Your task to perform on an android device: Search for a new foundation (skincare) product Image 0: 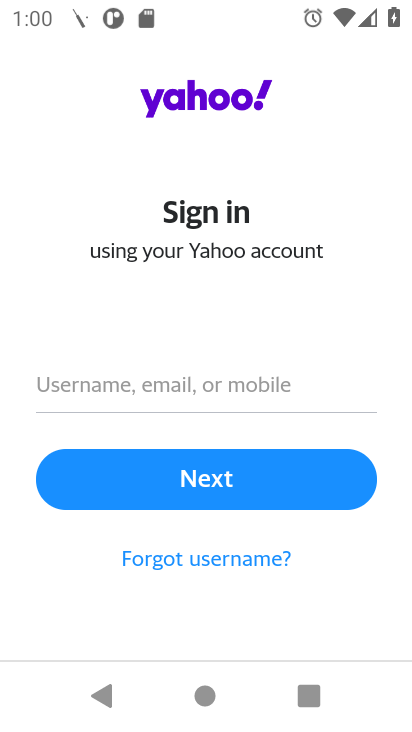
Step 0: press home button
Your task to perform on an android device: Search for a new foundation (skincare) product Image 1: 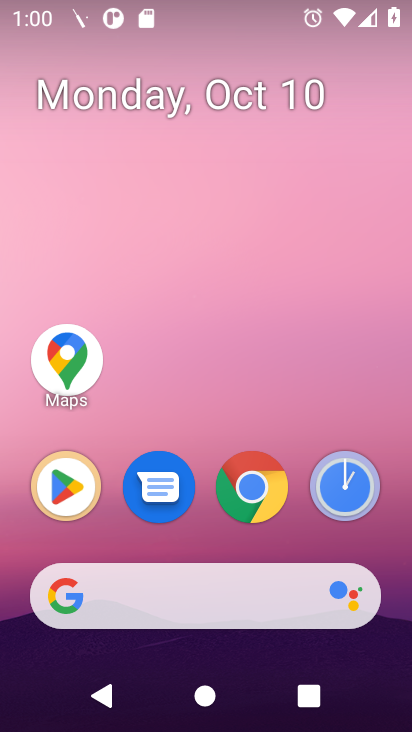
Step 1: click (248, 496)
Your task to perform on an android device: Search for a new foundation (skincare) product Image 2: 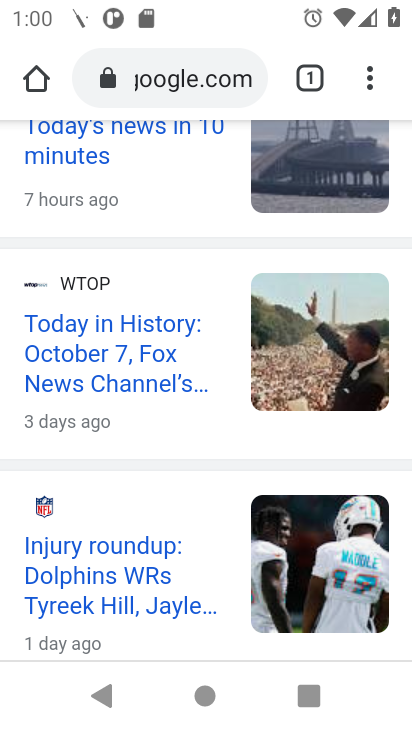
Step 2: click (176, 70)
Your task to perform on an android device: Search for a new foundation (skincare) product Image 3: 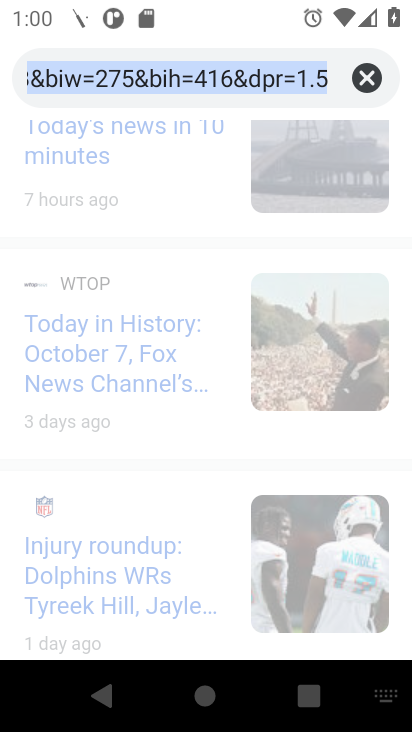
Step 3: type "new foundation skincare product"
Your task to perform on an android device: Search for a new foundation (skincare) product Image 4: 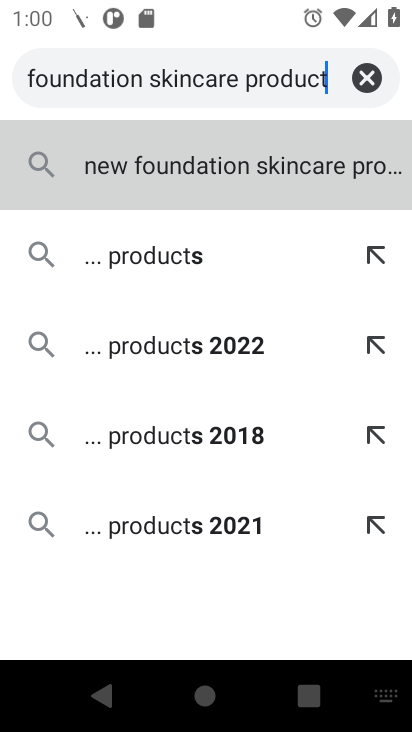
Step 4: press enter
Your task to perform on an android device: Search for a new foundation (skincare) product Image 5: 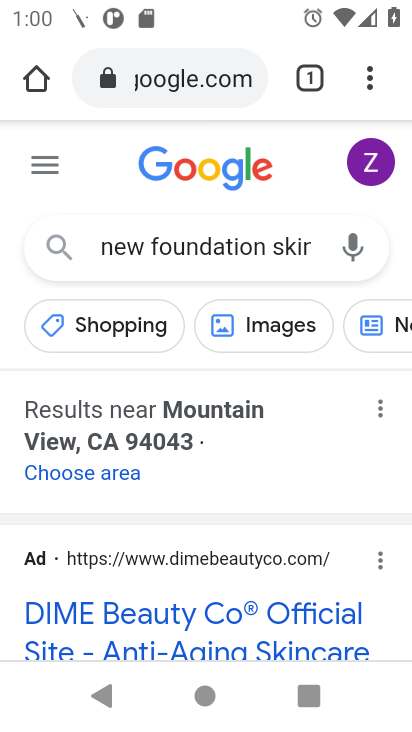
Step 5: drag from (271, 374) to (273, 326)
Your task to perform on an android device: Search for a new foundation (skincare) product Image 6: 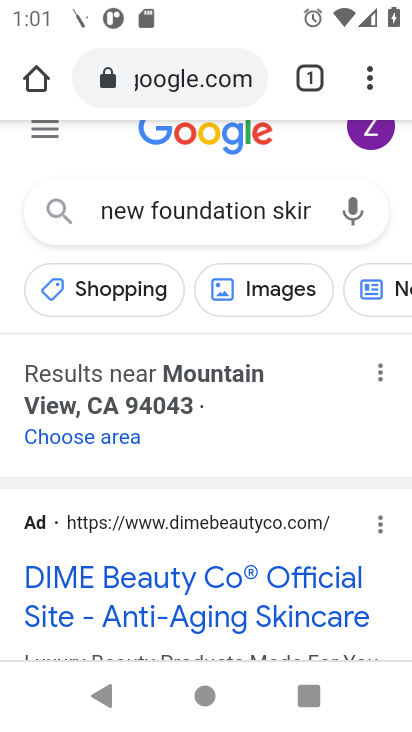
Step 6: drag from (303, 629) to (321, 195)
Your task to perform on an android device: Search for a new foundation (skincare) product Image 7: 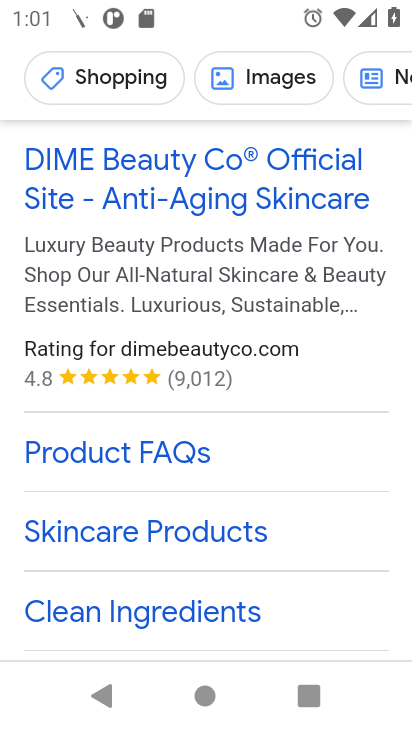
Step 7: drag from (323, 608) to (329, 316)
Your task to perform on an android device: Search for a new foundation (skincare) product Image 8: 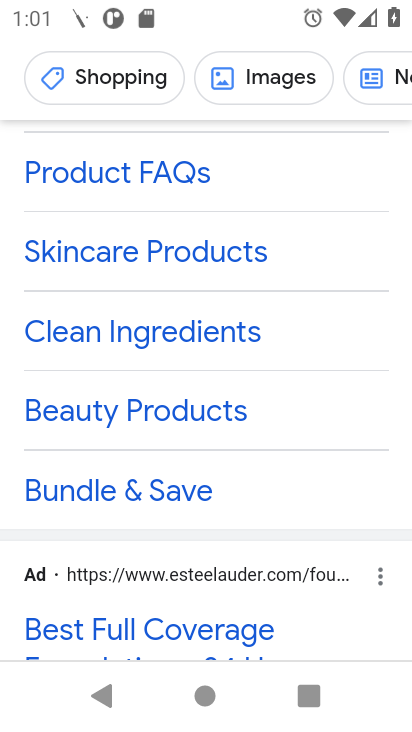
Step 8: click (220, 256)
Your task to perform on an android device: Search for a new foundation (skincare) product Image 9: 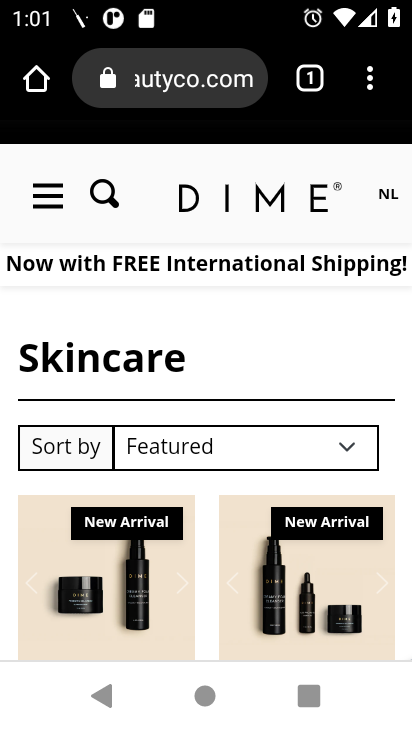
Step 9: drag from (146, 592) to (134, 222)
Your task to perform on an android device: Search for a new foundation (skincare) product Image 10: 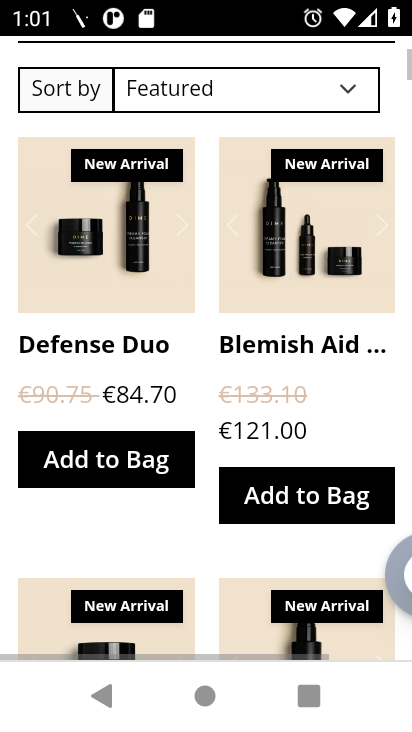
Step 10: drag from (177, 570) to (189, 261)
Your task to perform on an android device: Search for a new foundation (skincare) product Image 11: 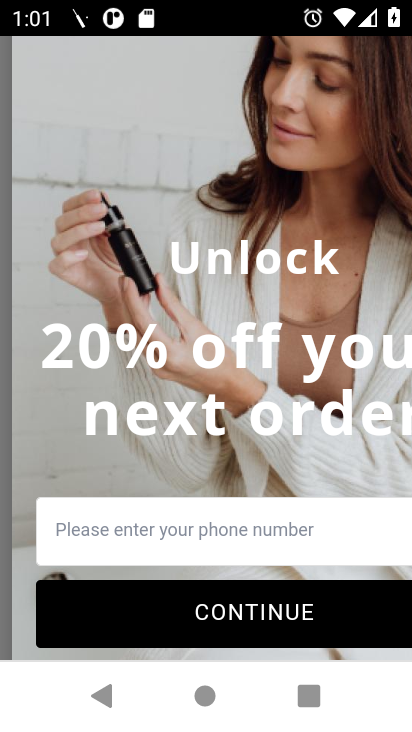
Step 11: drag from (265, 491) to (237, 139)
Your task to perform on an android device: Search for a new foundation (skincare) product Image 12: 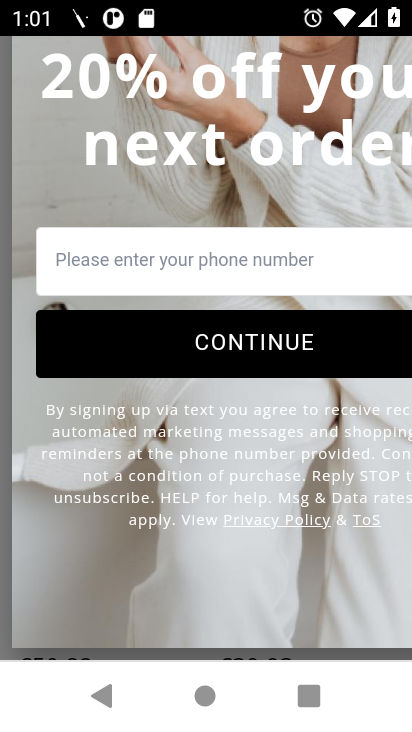
Step 12: drag from (215, 530) to (198, 618)
Your task to perform on an android device: Search for a new foundation (skincare) product Image 13: 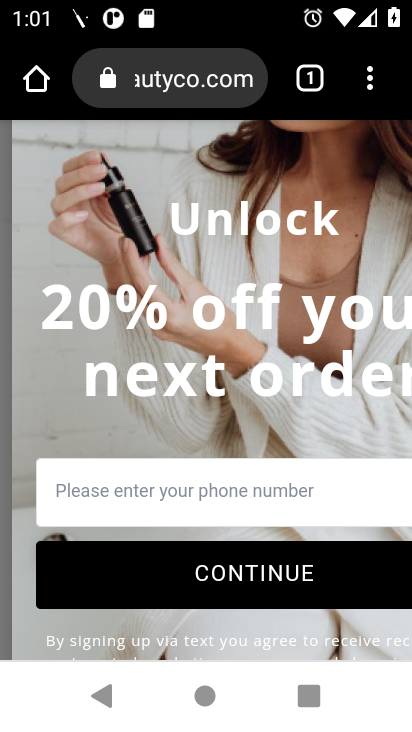
Step 13: drag from (232, 304) to (244, 625)
Your task to perform on an android device: Search for a new foundation (skincare) product Image 14: 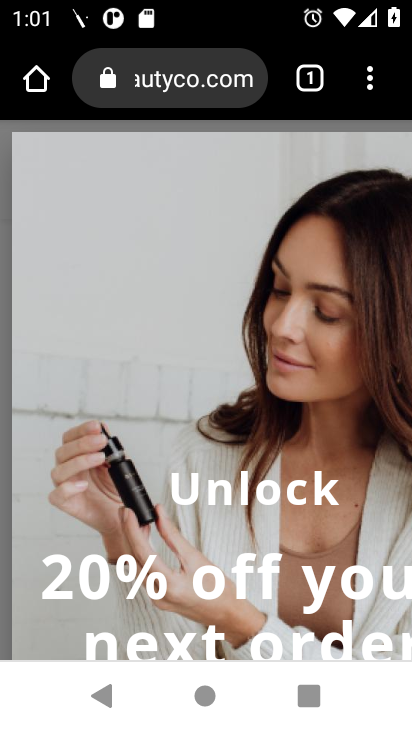
Step 14: press back button
Your task to perform on an android device: Search for a new foundation (skincare) product Image 15: 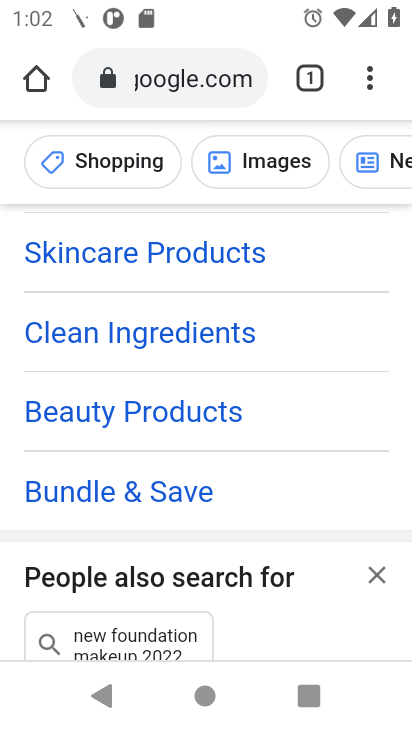
Step 15: drag from (253, 619) to (237, 331)
Your task to perform on an android device: Search for a new foundation (skincare) product Image 16: 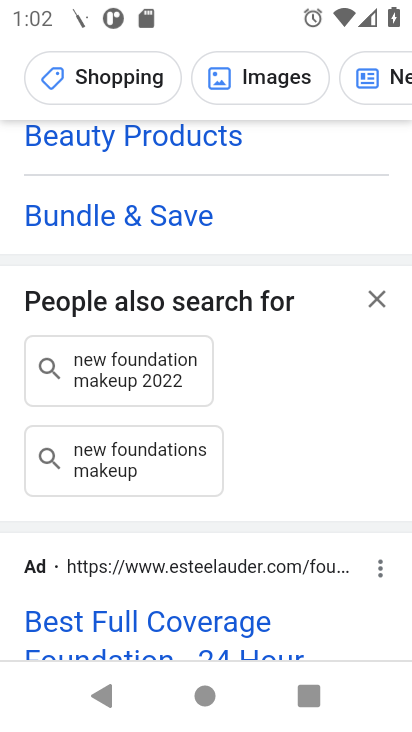
Step 16: drag from (264, 512) to (265, 189)
Your task to perform on an android device: Search for a new foundation (skincare) product Image 17: 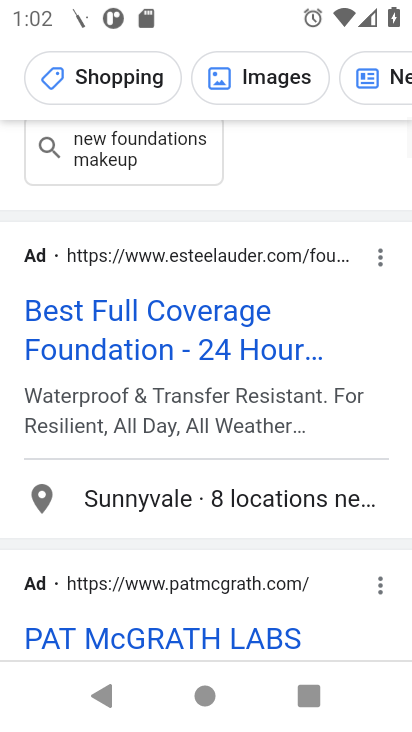
Step 17: drag from (248, 516) to (240, 204)
Your task to perform on an android device: Search for a new foundation (skincare) product Image 18: 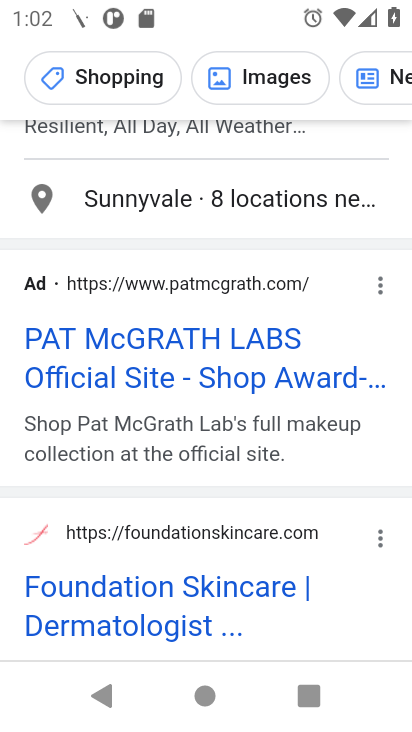
Step 18: drag from (246, 537) to (200, 170)
Your task to perform on an android device: Search for a new foundation (skincare) product Image 19: 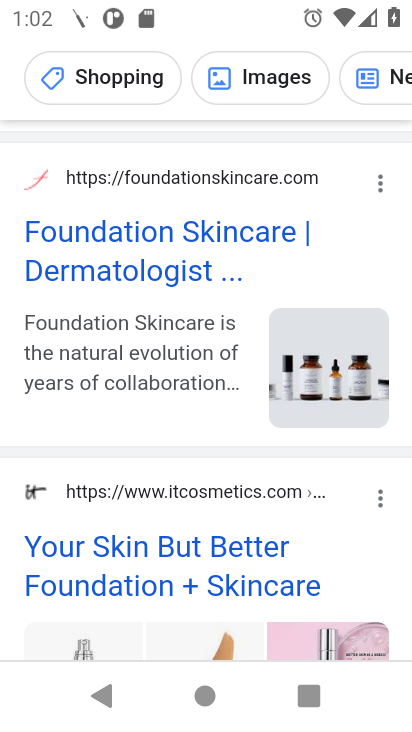
Step 19: click (164, 255)
Your task to perform on an android device: Search for a new foundation (skincare) product Image 20: 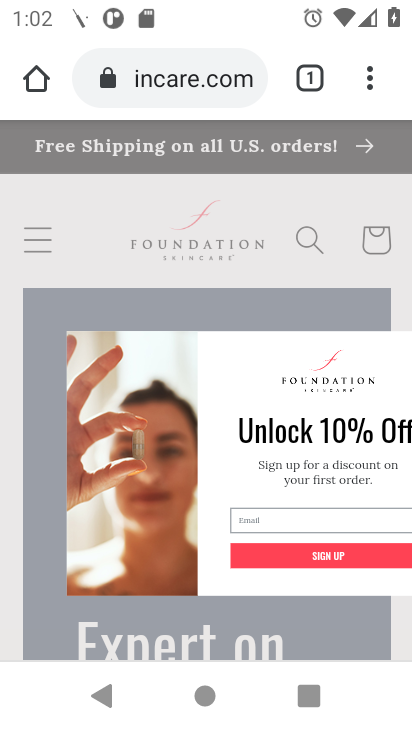
Step 20: drag from (258, 460) to (258, 231)
Your task to perform on an android device: Search for a new foundation (skincare) product Image 21: 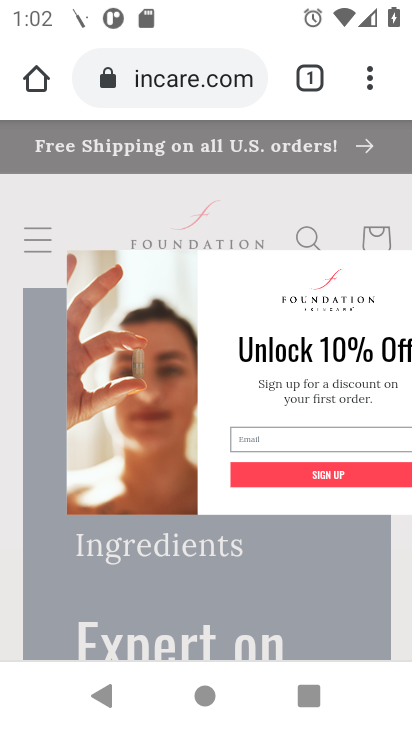
Step 21: drag from (342, 301) to (116, 298)
Your task to perform on an android device: Search for a new foundation (skincare) product Image 22: 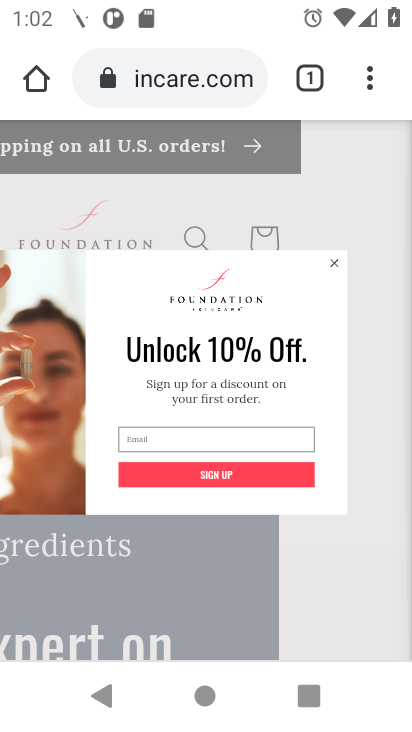
Step 22: click (337, 261)
Your task to perform on an android device: Search for a new foundation (skincare) product Image 23: 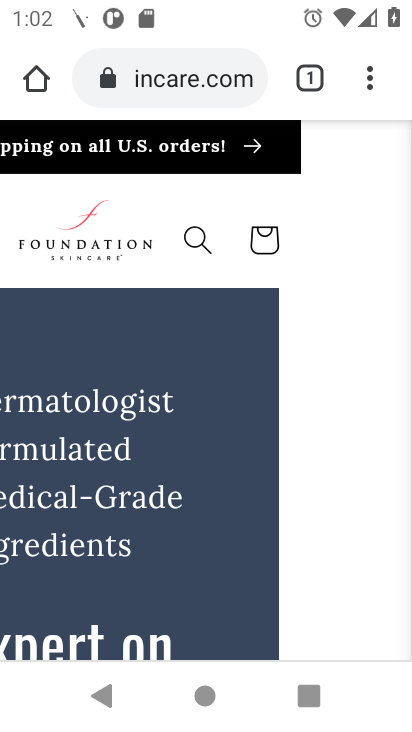
Step 23: task complete